Your task to perform on an android device: Open battery settings Image 0: 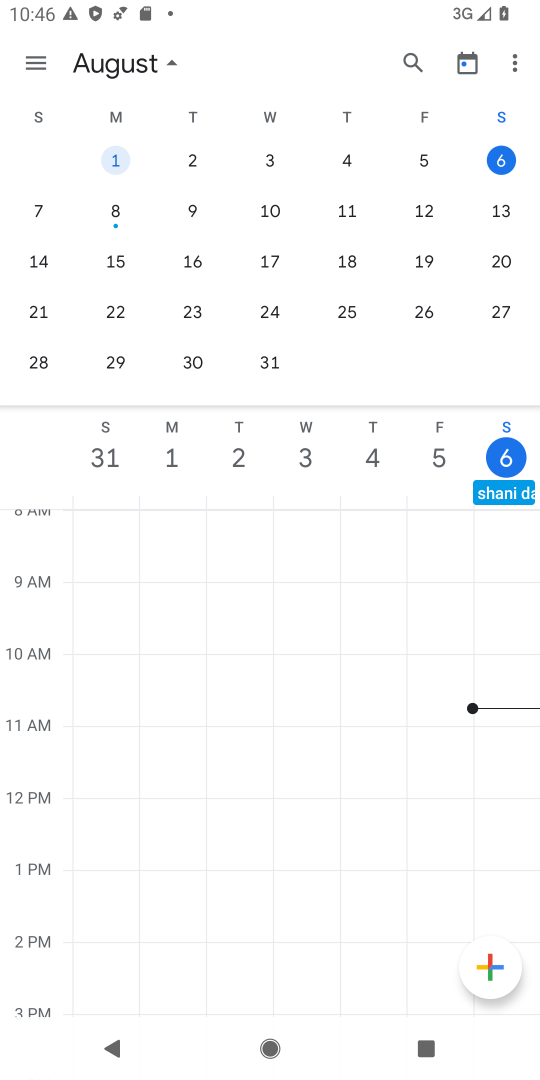
Step 0: press back button
Your task to perform on an android device: Open battery settings Image 1: 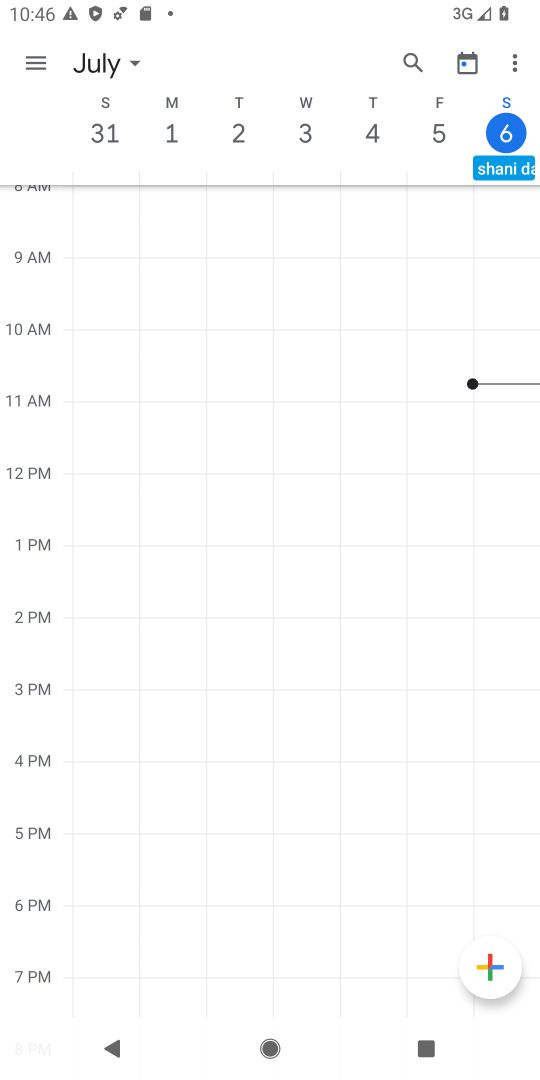
Step 1: press home button
Your task to perform on an android device: Open battery settings Image 2: 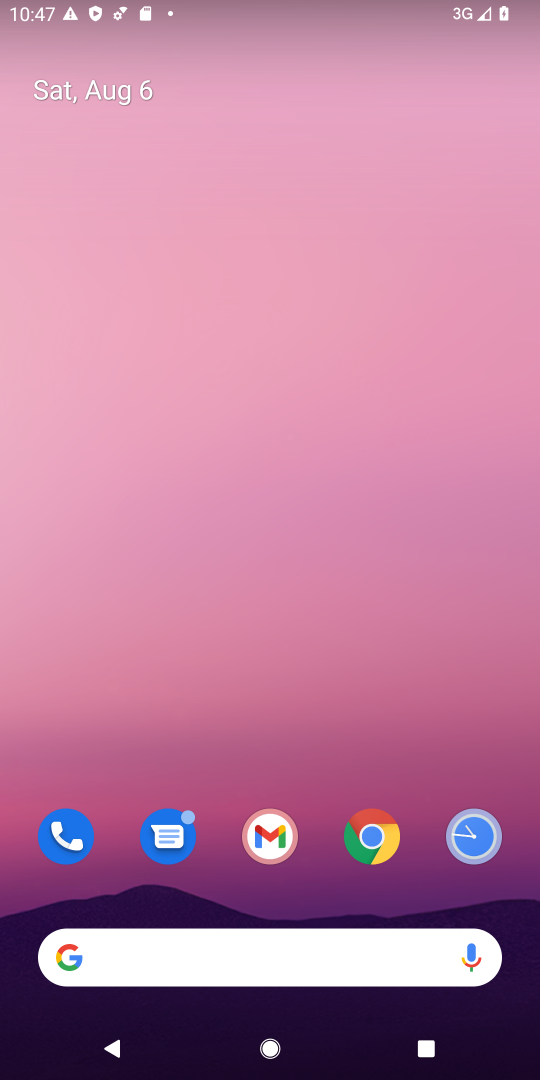
Step 2: drag from (282, 860) to (312, 154)
Your task to perform on an android device: Open battery settings Image 3: 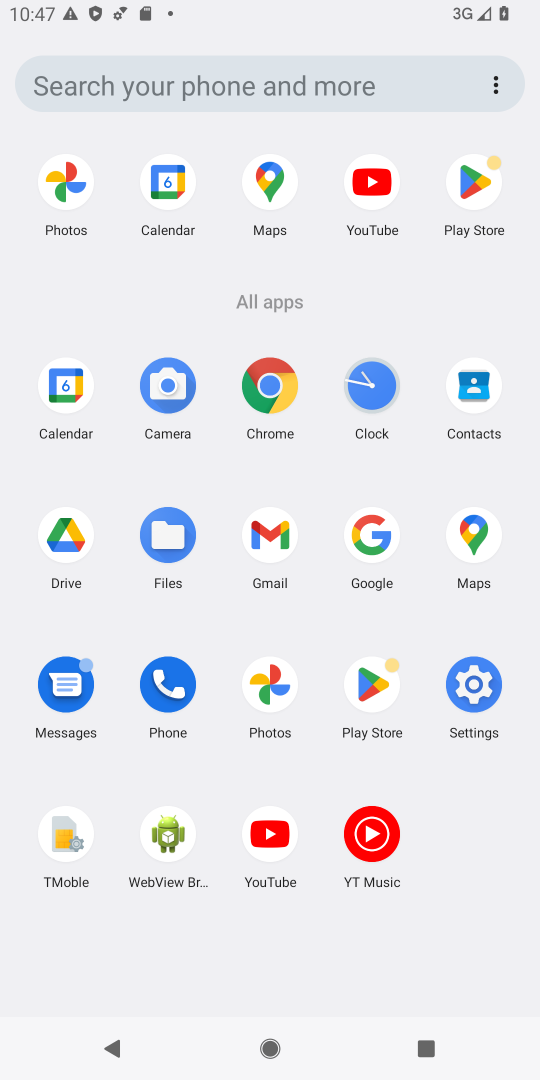
Step 3: click (452, 674)
Your task to perform on an android device: Open battery settings Image 4: 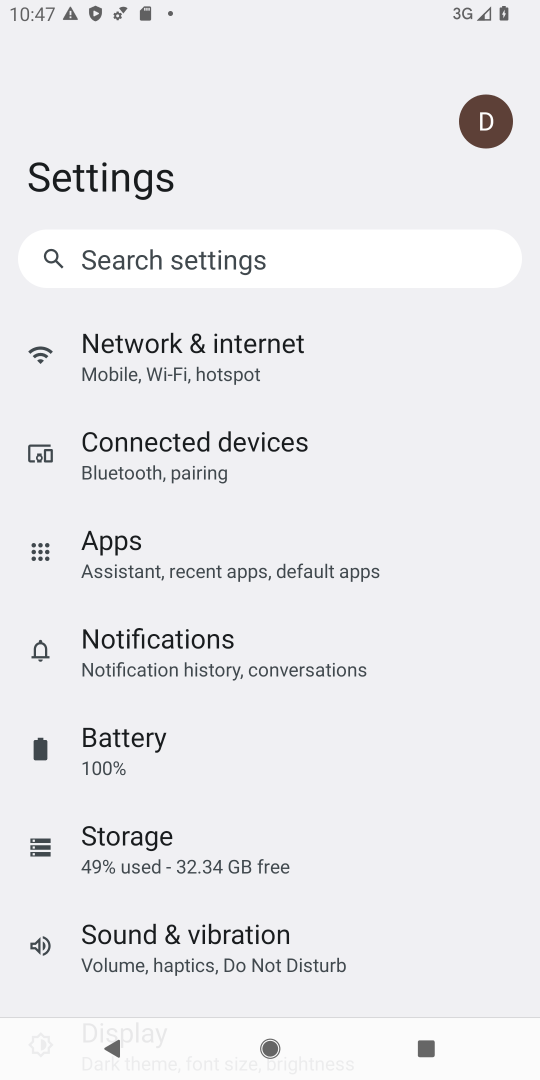
Step 4: click (140, 763)
Your task to perform on an android device: Open battery settings Image 5: 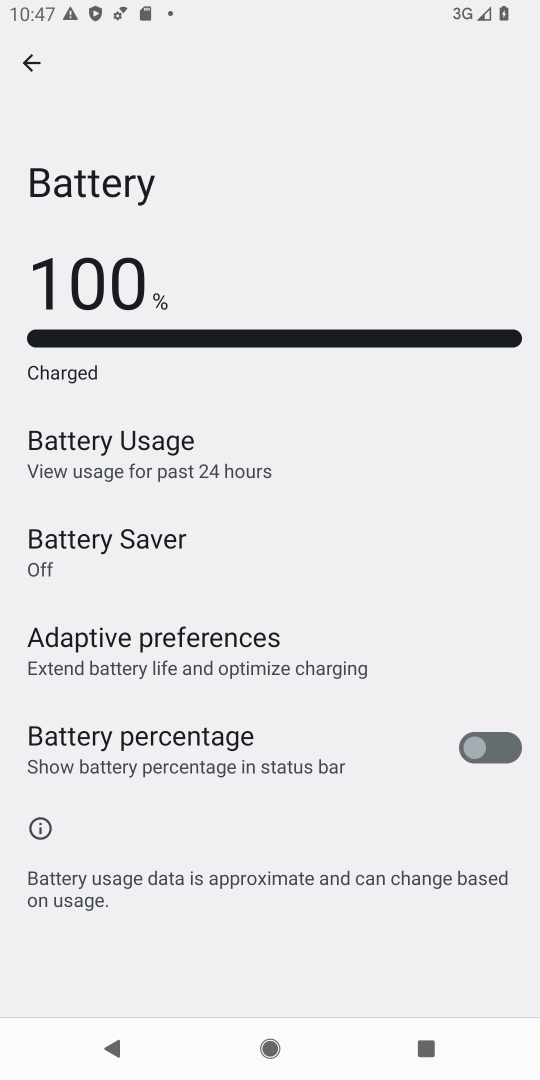
Step 5: task complete